Your task to perform on an android device: turn on the 12-hour format for clock Image 0: 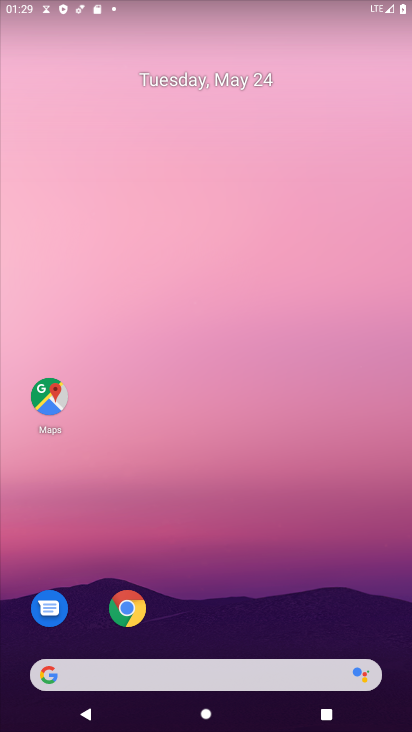
Step 0: drag from (216, 640) to (180, 183)
Your task to perform on an android device: turn on the 12-hour format for clock Image 1: 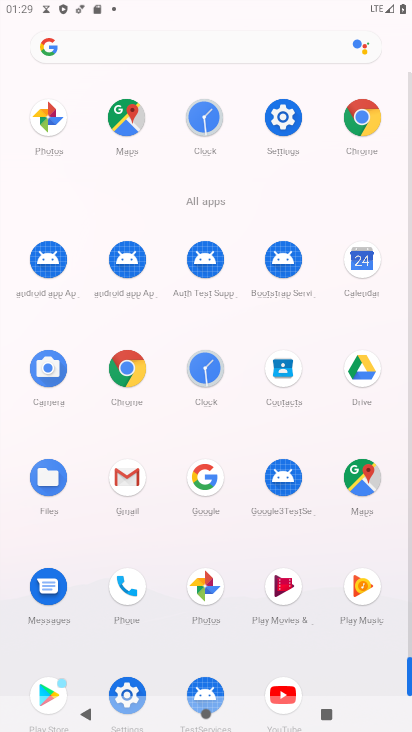
Step 1: click (197, 368)
Your task to perform on an android device: turn on the 12-hour format for clock Image 2: 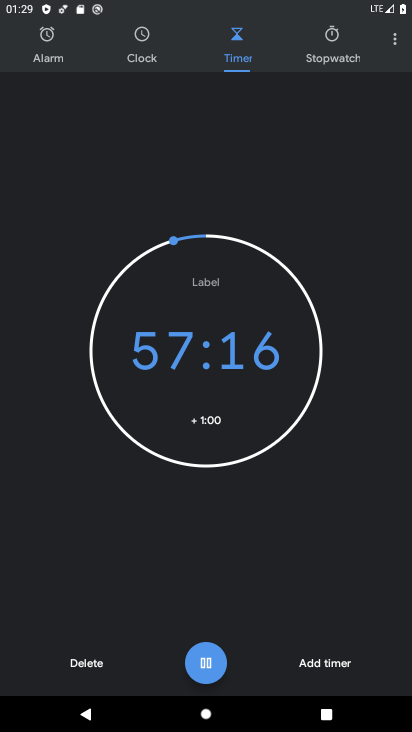
Step 2: click (395, 42)
Your task to perform on an android device: turn on the 12-hour format for clock Image 3: 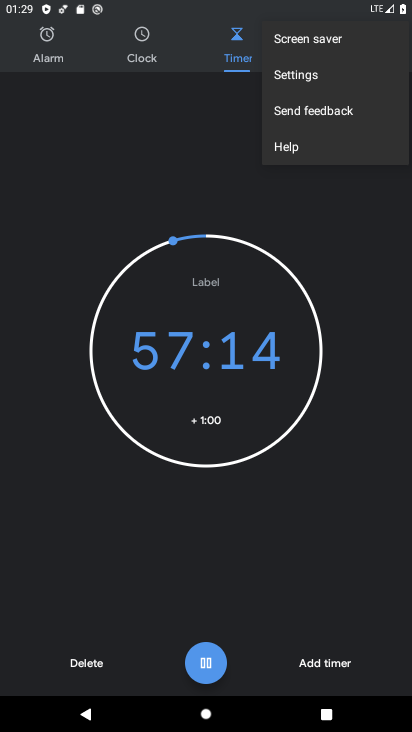
Step 3: click (356, 75)
Your task to perform on an android device: turn on the 12-hour format for clock Image 4: 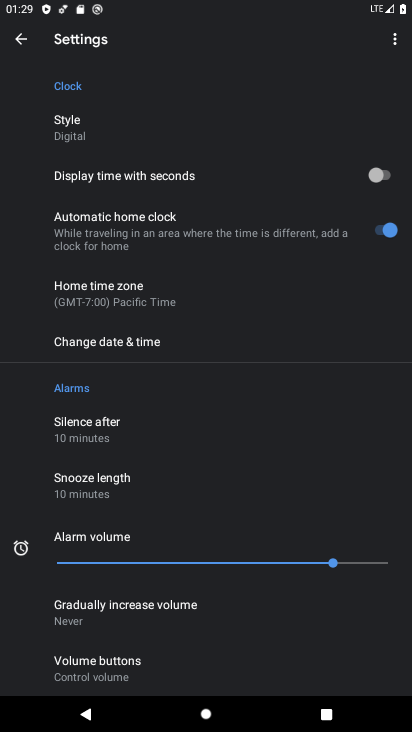
Step 4: click (194, 352)
Your task to perform on an android device: turn on the 12-hour format for clock Image 5: 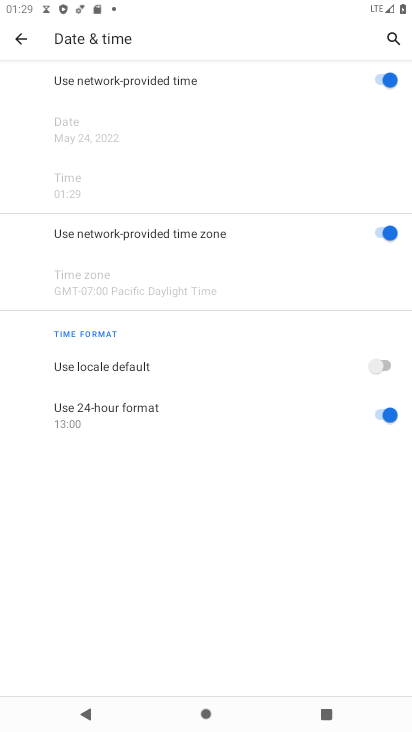
Step 5: click (384, 406)
Your task to perform on an android device: turn on the 12-hour format for clock Image 6: 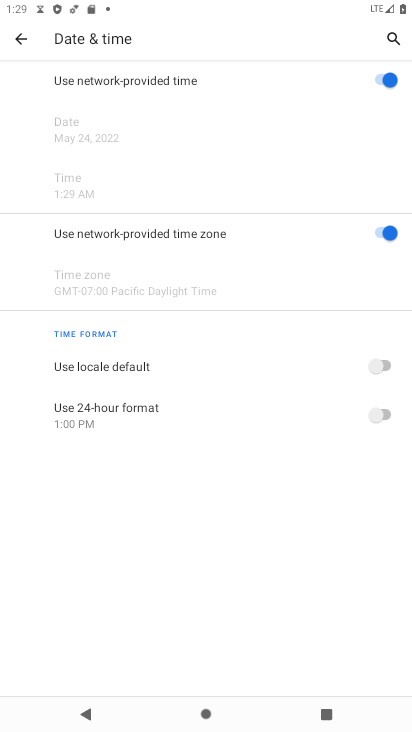
Step 6: task complete